Your task to perform on an android device: Open internet settings Image 0: 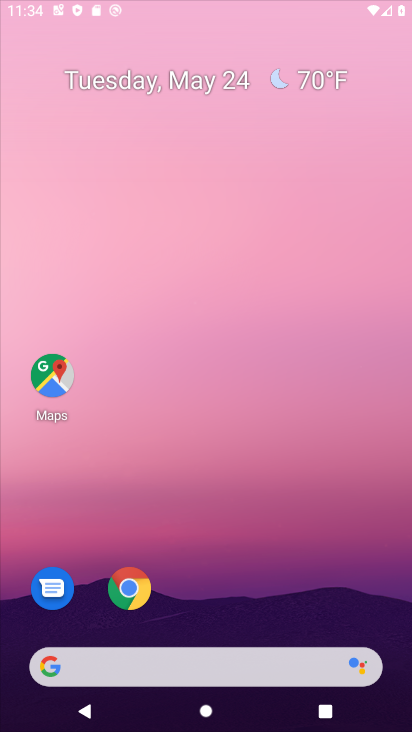
Step 0: press home button
Your task to perform on an android device: Open internet settings Image 1: 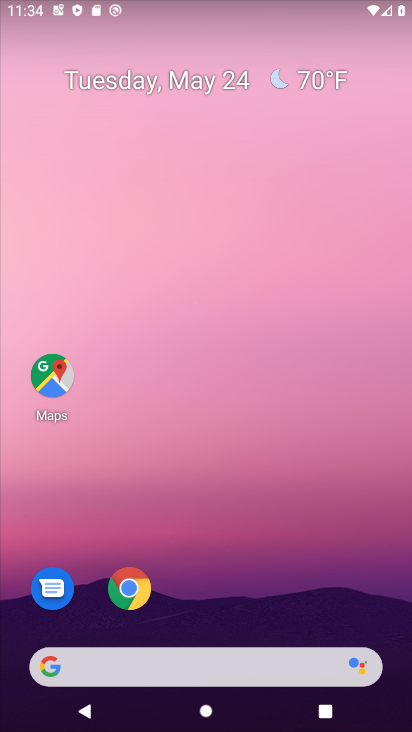
Step 1: drag from (219, 632) to (224, 39)
Your task to perform on an android device: Open internet settings Image 2: 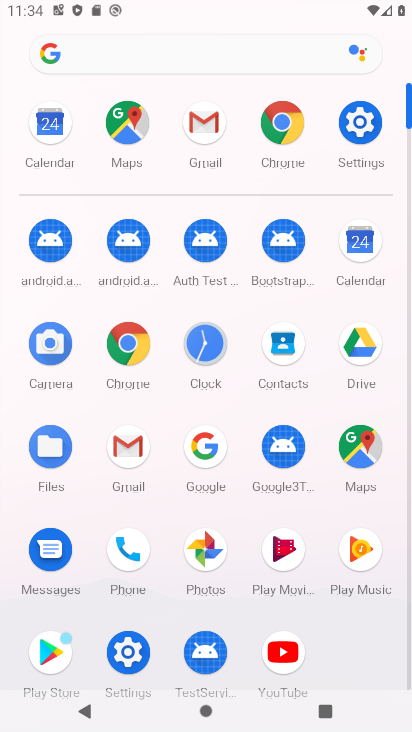
Step 2: click (205, 540)
Your task to perform on an android device: Open internet settings Image 3: 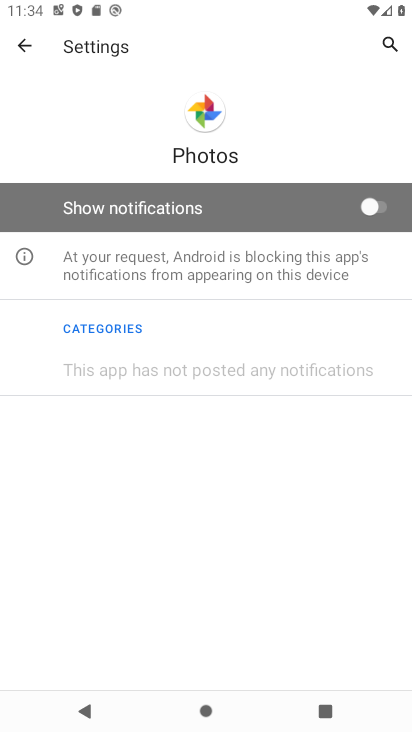
Step 3: press home button
Your task to perform on an android device: Open internet settings Image 4: 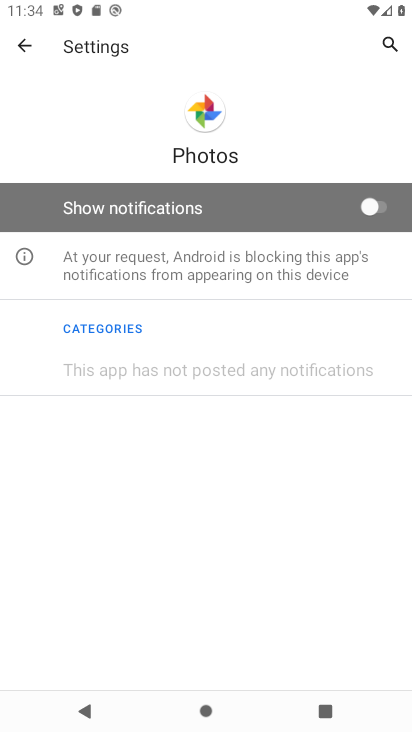
Step 4: press home button
Your task to perform on an android device: Open internet settings Image 5: 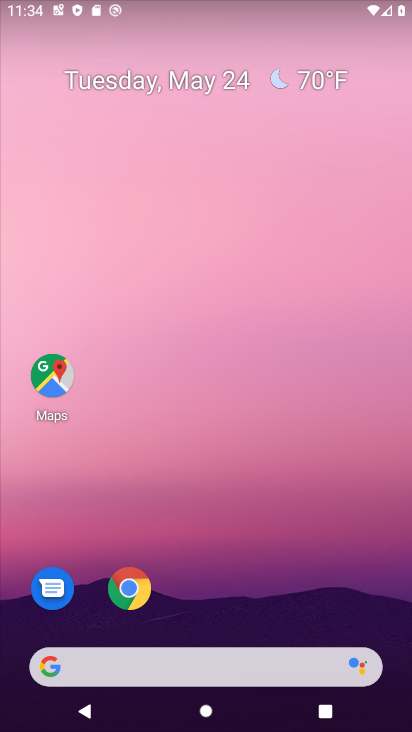
Step 5: drag from (226, 625) to (226, 47)
Your task to perform on an android device: Open internet settings Image 6: 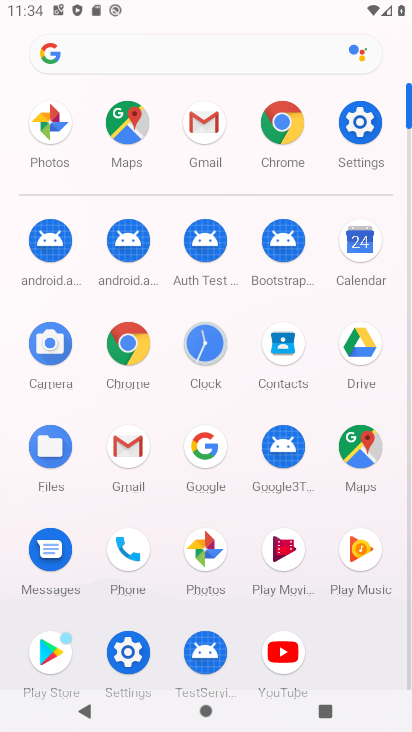
Step 6: click (357, 113)
Your task to perform on an android device: Open internet settings Image 7: 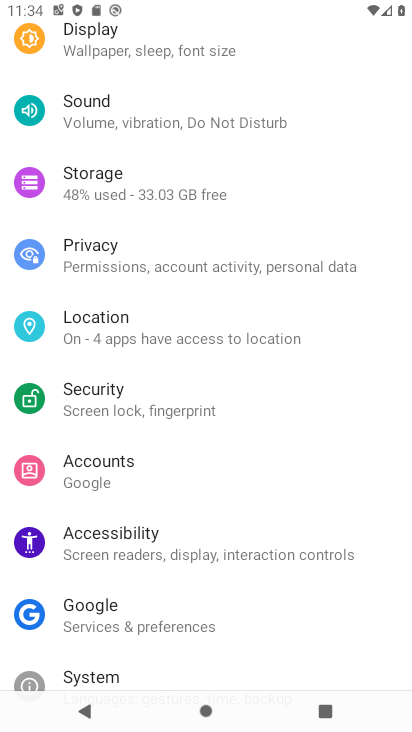
Step 7: drag from (133, 79) to (142, 622)
Your task to perform on an android device: Open internet settings Image 8: 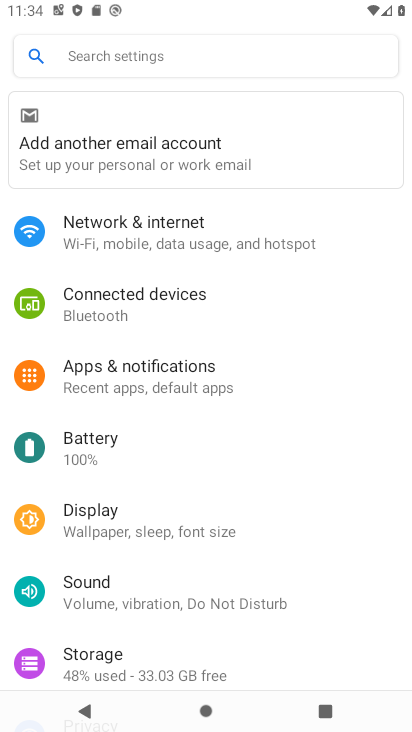
Step 8: click (146, 226)
Your task to perform on an android device: Open internet settings Image 9: 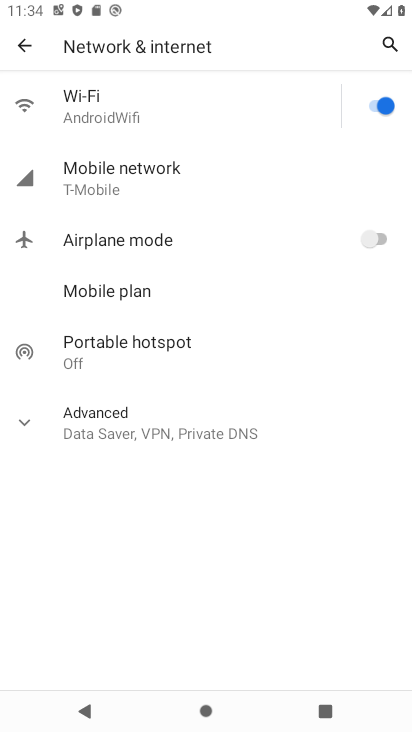
Step 9: click (25, 421)
Your task to perform on an android device: Open internet settings Image 10: 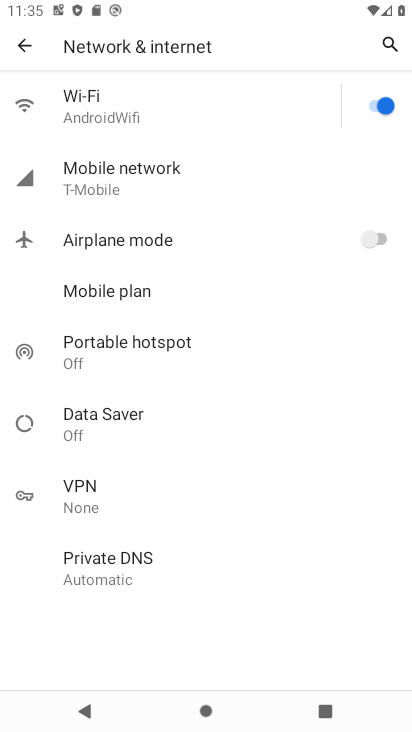
Step 10: task complete